Your task to perform on an android device: Open Youtube and go to the subscriptions tab Image 0: 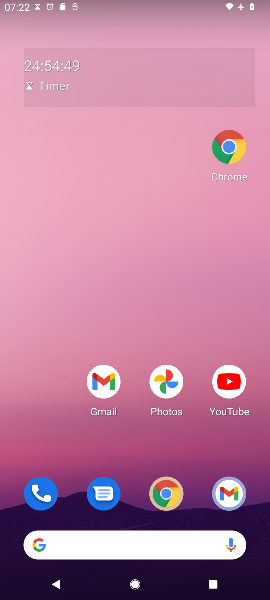
Step 0: press home button
Your task to perform on an android device: Open Youtube and go to the subscriptions tab Image 1: 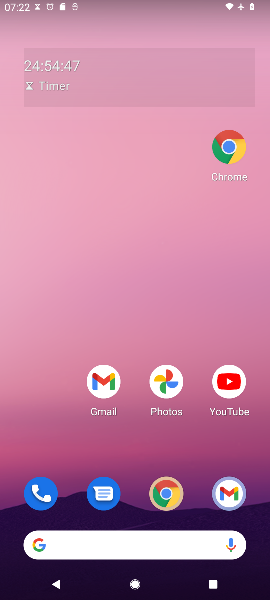
Step 1: click (231, 387)
Your task to perform on an android device: Open Youtube and go to the subscriptions tab Image 2: 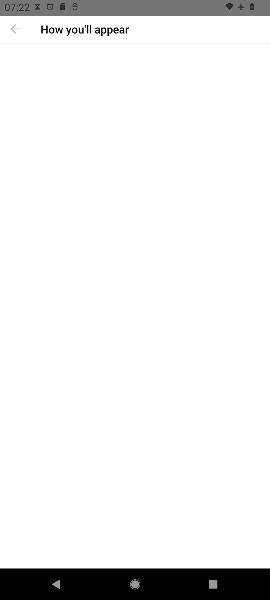
Step 2: click (10, 29)
Your task to perform on an android device: Open Youtube and go to the subscriptions tab Image 3: 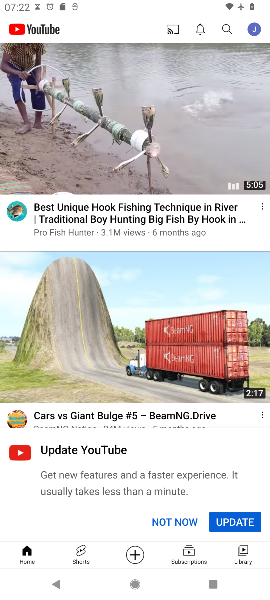
Step 3: click (187, 556)
Your task to perform on an android device: Open Youtube and go to the subscriptions tab Image 4: 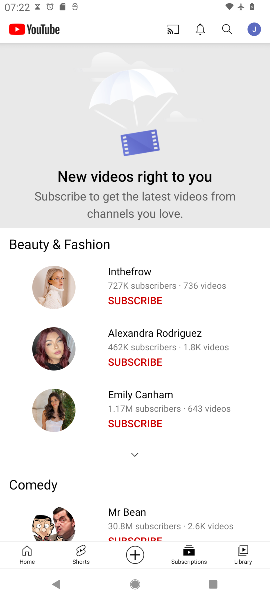
Step 4: task complete